Your task to perform on an android device: change the upload size in google photos Image 0: 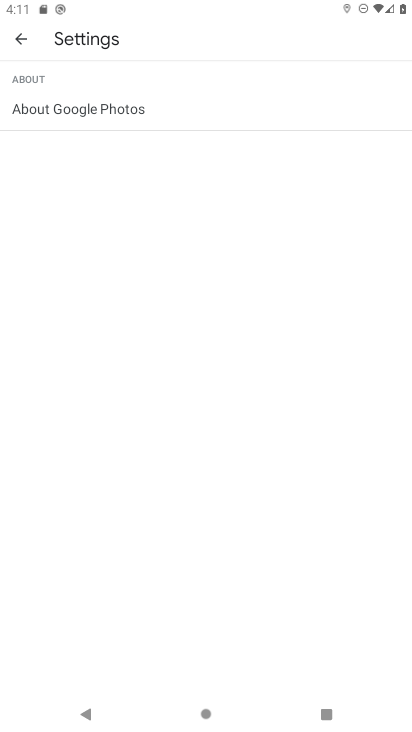
Step 0: press home button
Your task to perform on an android device: change the upload size in google photos Image 1: 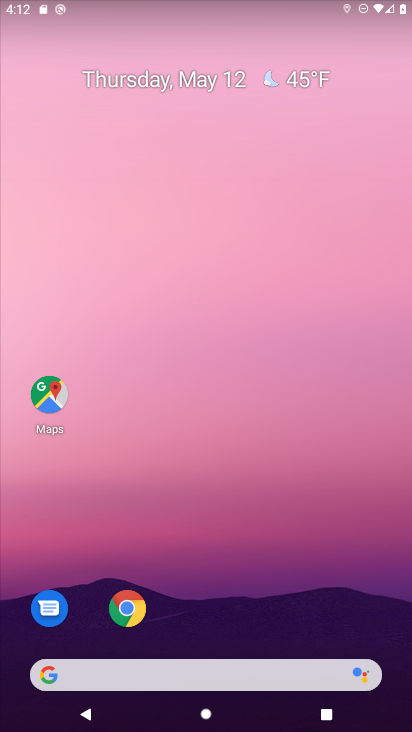
Step 1: drag from (238, 604) to (231, 143)
Your task to perform on an android device: change the upload size in google photos Image 2: 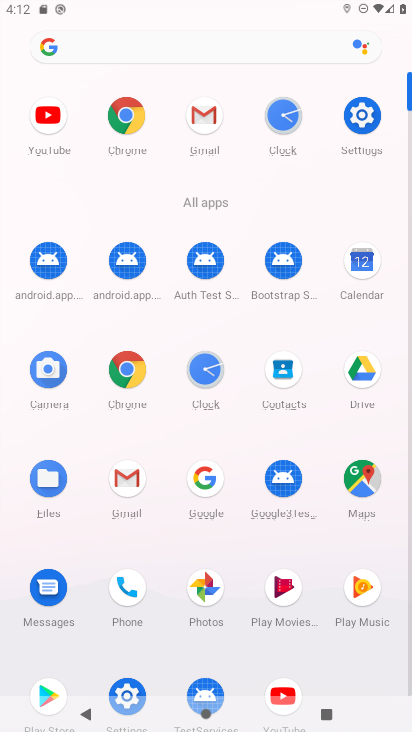
Step 2: click (197, 607)
Your task to perform on an android device: change the upload size in google photos Image 3: 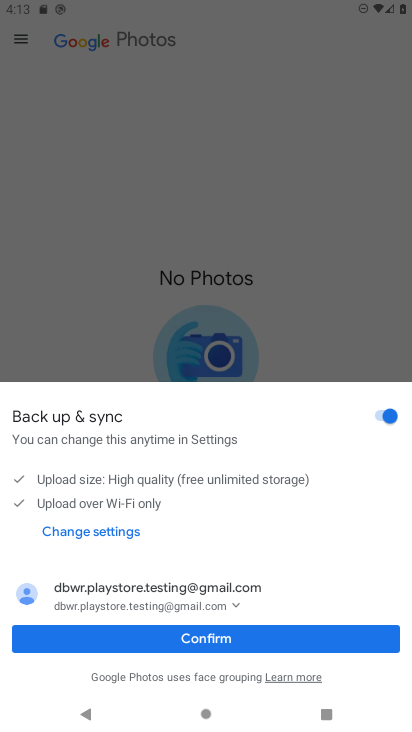
Step 3: click (200, 640)
Your task to perform on an android device: change the upload size in google photos Image 4: 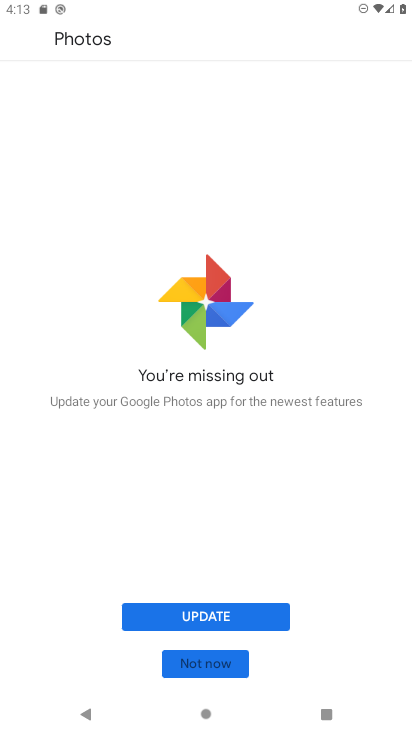
Step 4: click (193, 620)
Your task to perform on an android device: change the upload size in google photos Image 5: 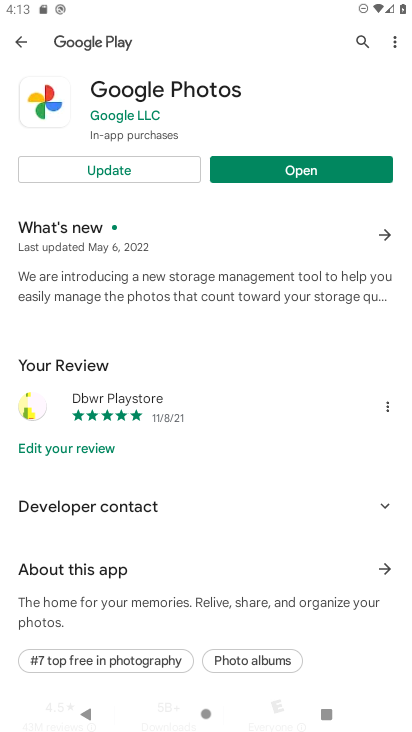
Step 5: click (173, 172)
Your task to perform on an android device: change the upload size in google photos Image 6: 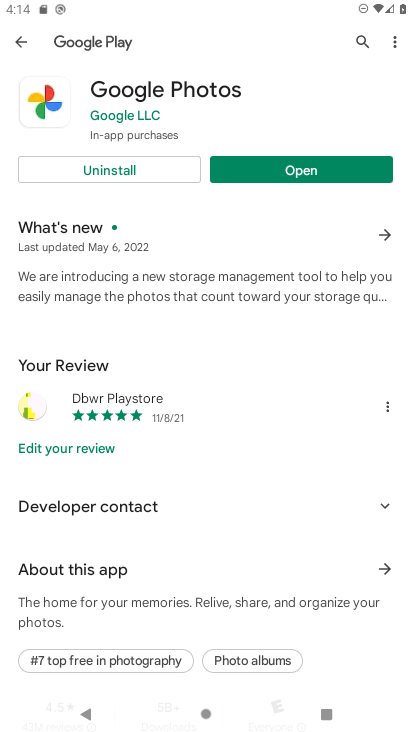
Step 6: click (250, 169)
Your task to perform on an android device: change the upload size in google photos Image 7: 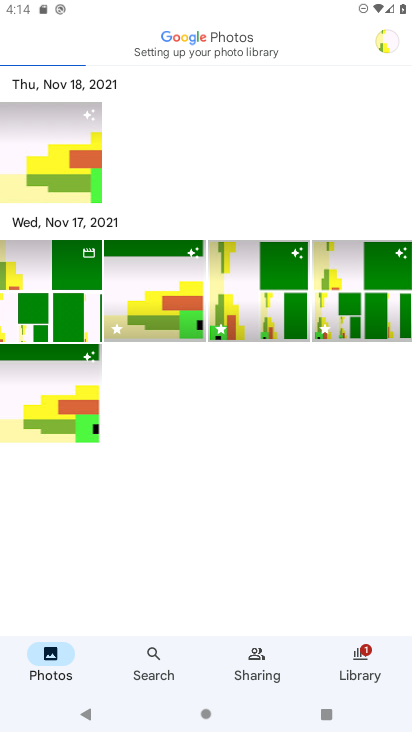
Step 7: click (392, 47)
Your task to perform on an android device: change the upload size in google photos Image 8: 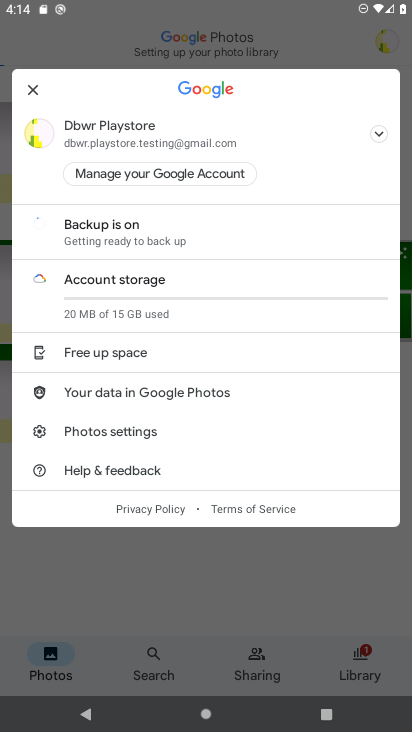
Step 8: click (173, 147)
Your task to perform on an android device: change the upload size in google photos Image 9: 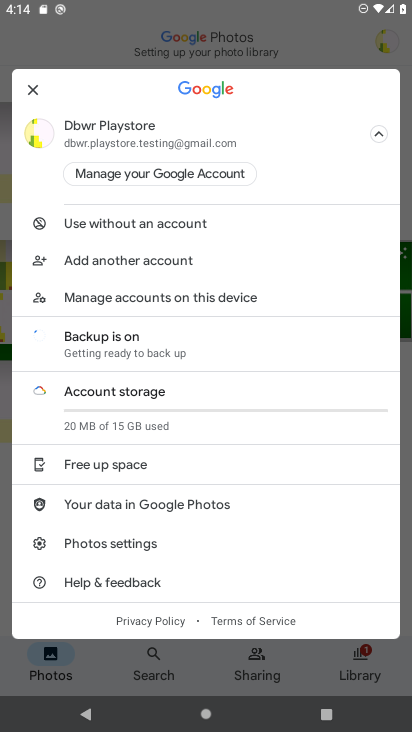
Step 9: task complete